Your task to perform on an android device: turn on bluetooth scan Image 0: 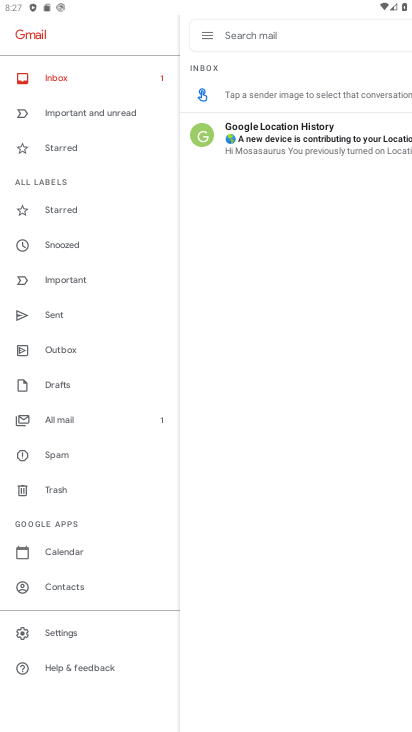
Step 0: press home button
Your task to perform on an android device: turn on bluetooth scan Image 1: 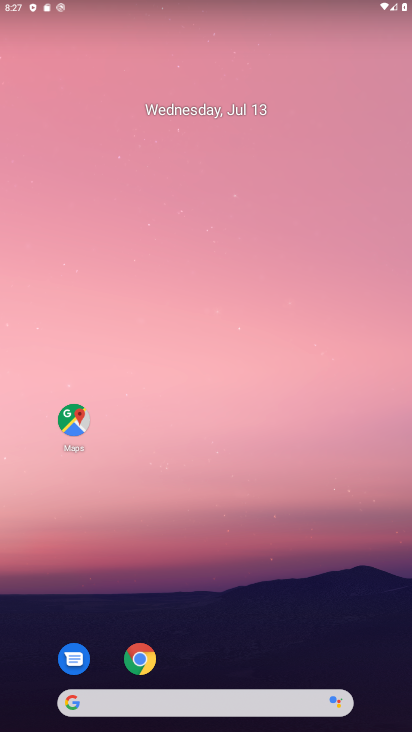
Step 1: drag from (29, 639) to (261, 1)
Your task to perform on an android device: turn on bluetooth scan Image 2: 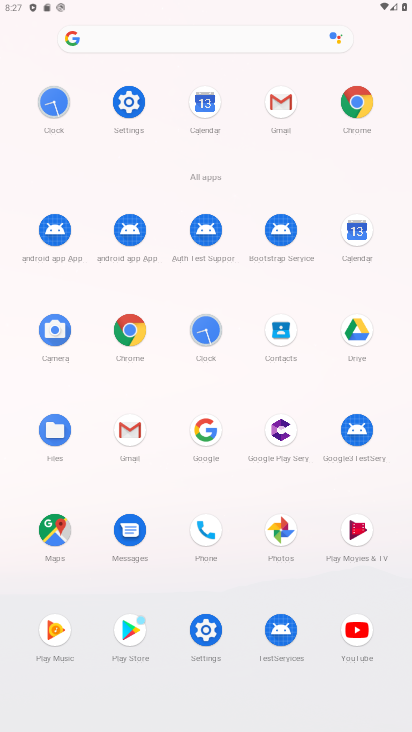
Step 2: click (134, 111)
Your task to perform on an android device: turn on bluetooth scan Image 3: 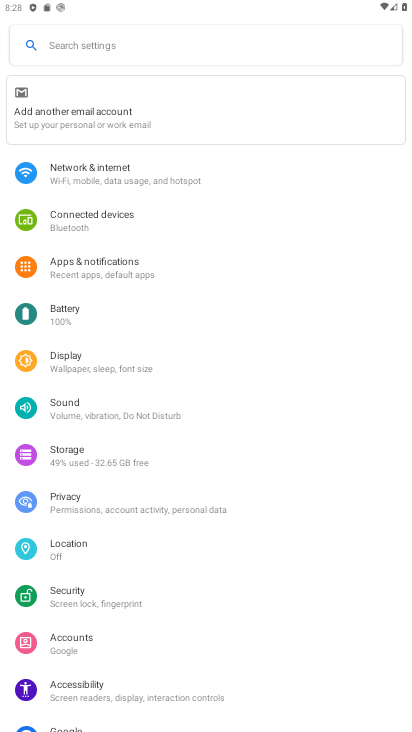
Step 3: click (91, 512)
Your task to perform on an android device: turn on bluetooth scan Image 4: 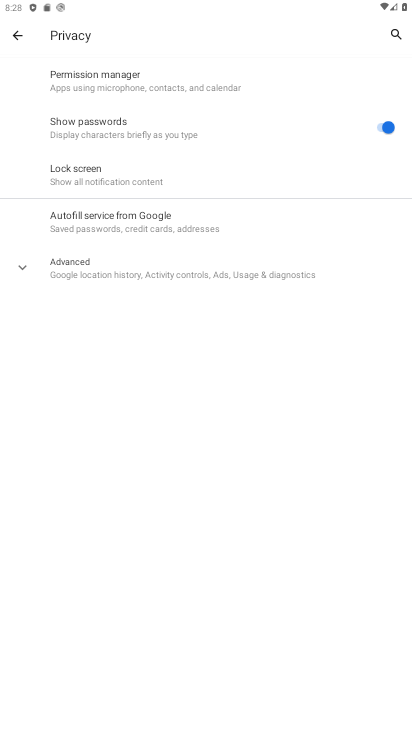
Step 4: task complete